Your task to perform on an android device: Open Google Chrome Image 0: 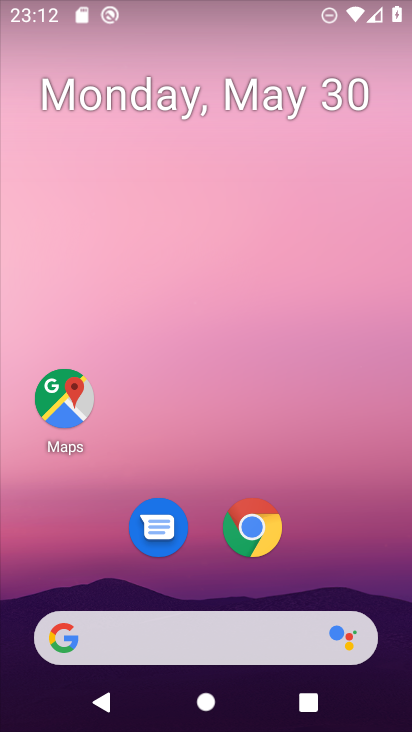
Step 0: drag from (293, 574) to (302, 311)
Your task to perform on an android device: Open Google Chrome Image 1: 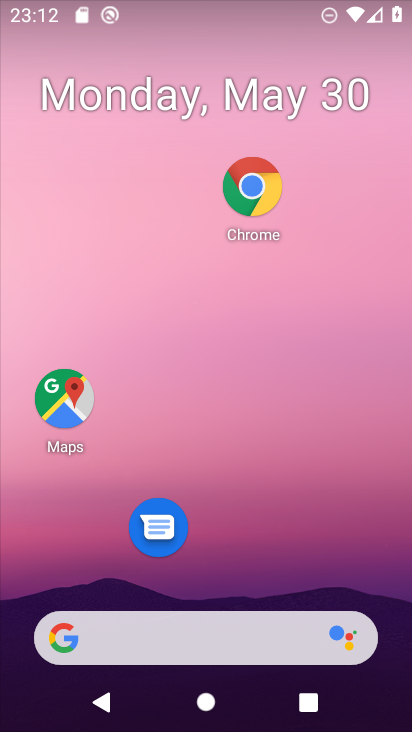
Step 1: drag from (257, 594) to (257, 353)
Your task to perform on an android device: Open Google Chrome Image 2: 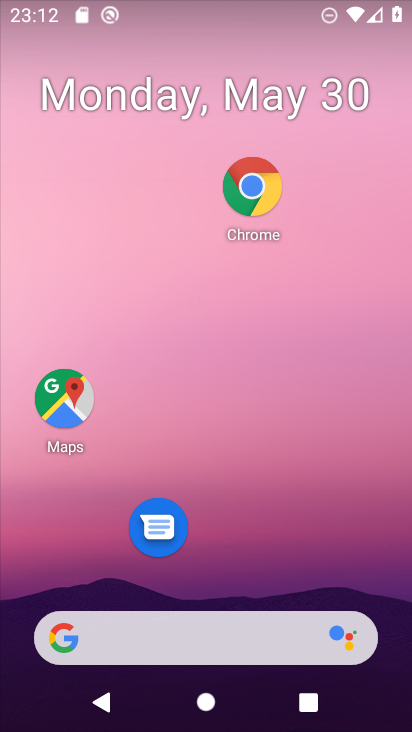
Step 2: drag from (269, 571) to (307, 206)
Your task to perform on an android device: Open Google Chrome Image 3: 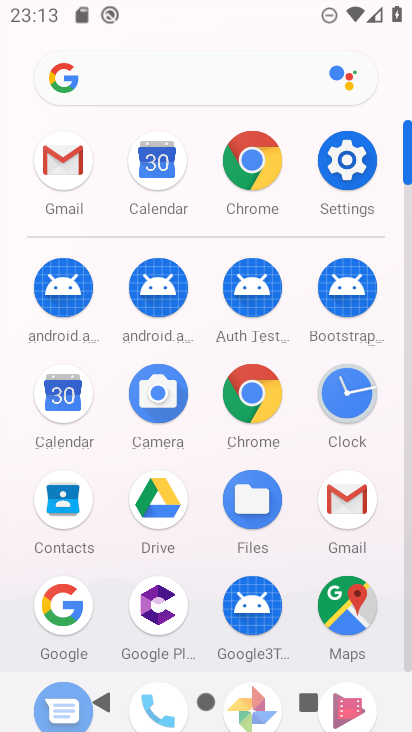
Step 3: click (247, 398)
Your task to perform on an android device: Open Google Chrome Image 4: 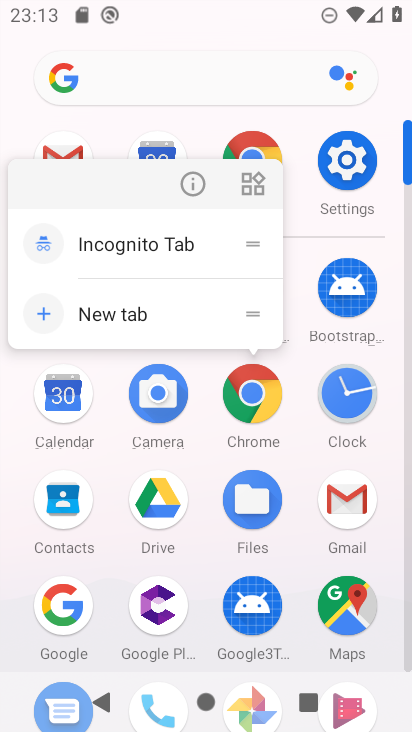
Step 4: click (249, 397)
Your task to perform on an android device: Open Google Chrome Image 5: 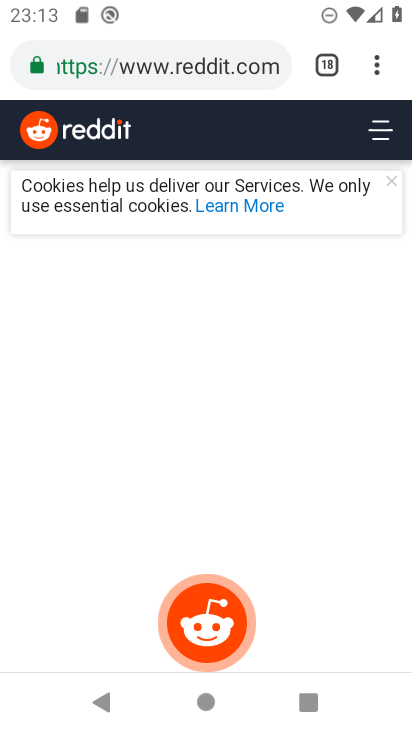
Step 5: task complete